Your task to perform on an android device: Go to privacy settings Image 0: 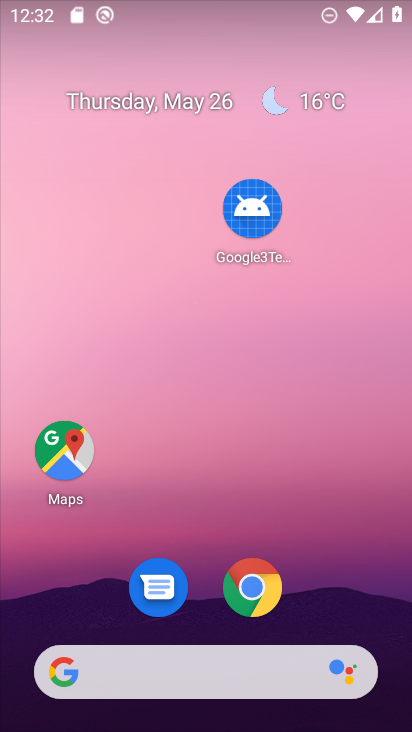
Step 0: drag from (229, 673) to (179, 54)
Your task to perform on an android device: Go to privacy settings Image 1: 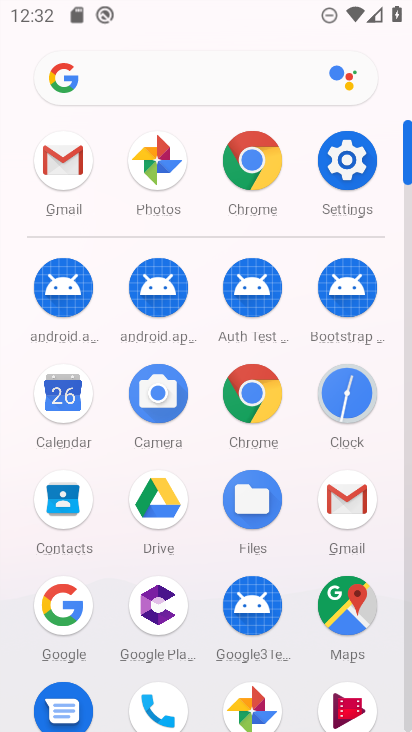
Step 1: click (345, 180)
Your task to perform on an android device: Go to privacy settings Image 2: 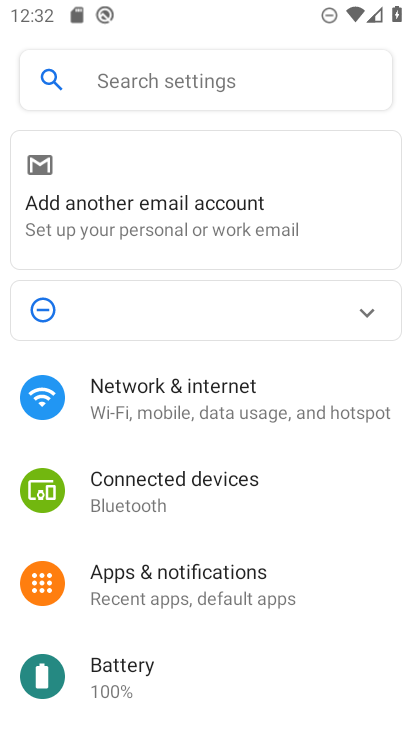
Step 2: drag from (164, 569) to (143, 53)
Your task to perform on an android device: Go to privacy settings Image 3: 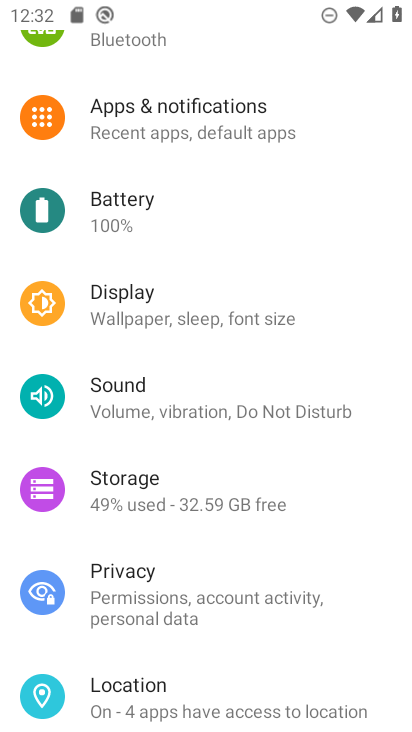
Step 3: click (147, 575)
Your task to perform on an android device: Go to privacy settings Image 4: 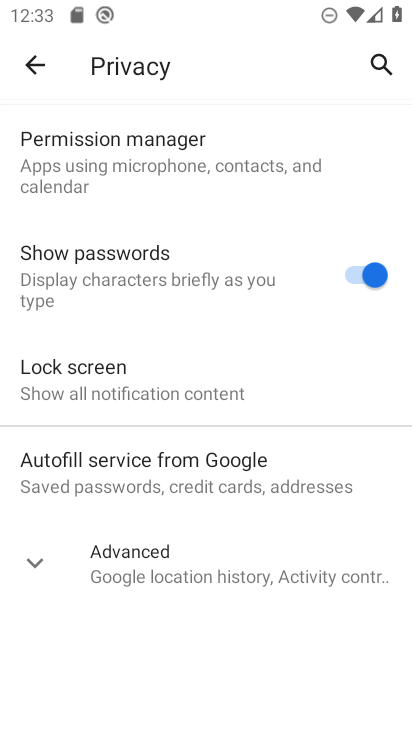
Step 4: task complete